Your task to perform on an android device: check data usage Image 0: 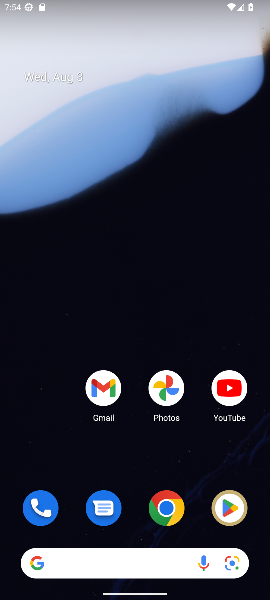
Step 0: drag from (129, 529) to (106, 107)
Your task to perform on an android device: check data usage Image 1: 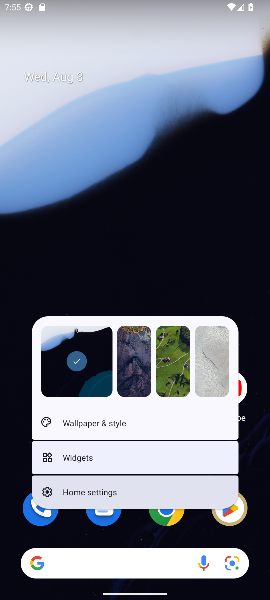
Step 1: click (94, 193)
Your task to perform on an android device: check data usage Image 2: 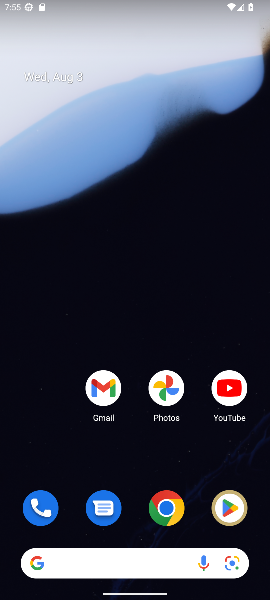
Step 2: drag from (145, 538) to (93, 214)
Your task to perform on an android device: check data usage Image 3: 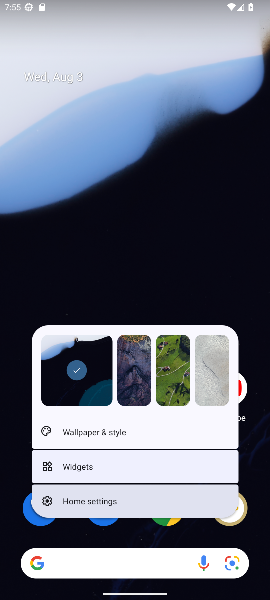
Step 3: click (92, 214)
Your task to perform on an android device: check data usage Image 4: 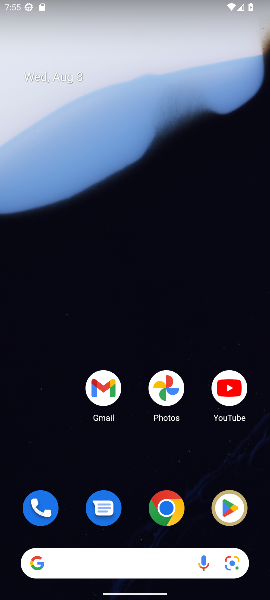
Step 4: drag from (146, 552) to (137, 3)
Your task to perform on an android device: check data usage Image 5: 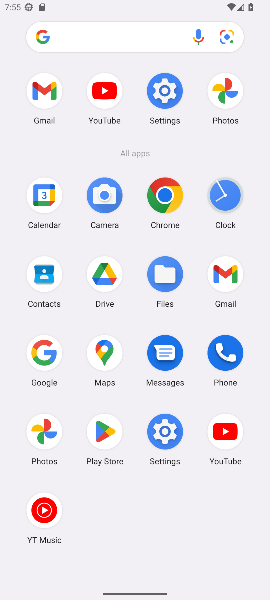
Step 5: click (163, 435)
Your task to perform on an android device: check data usage Image 6: 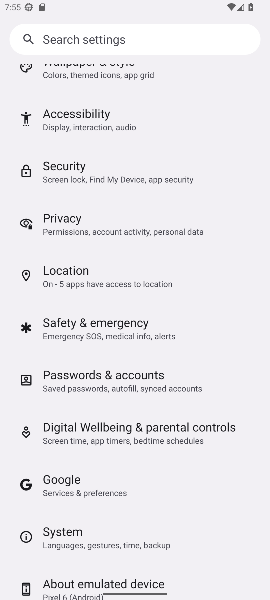
Step 6: drag from (117, 145) to (65, 497)
Your task to perform on an android device: check data usage Image 7: 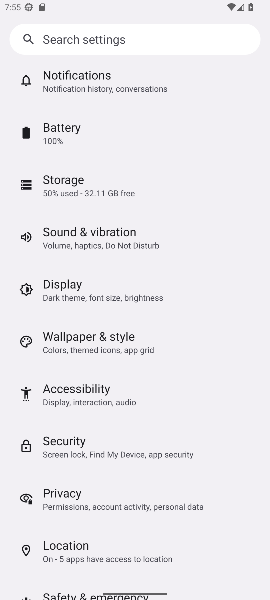
Step 7: drag from (90, 109) to (74, 452)
Your task to perform on an android device: check data usage Image 8: 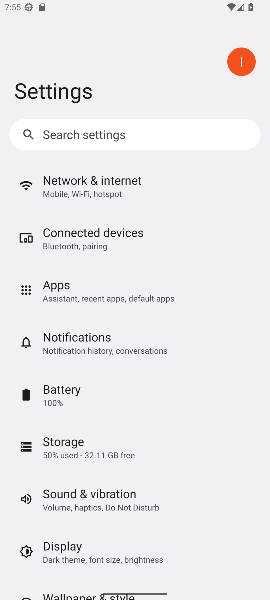
Step 8: click (64, 175)
Your task to perform on an android device: check data usage Image 9: 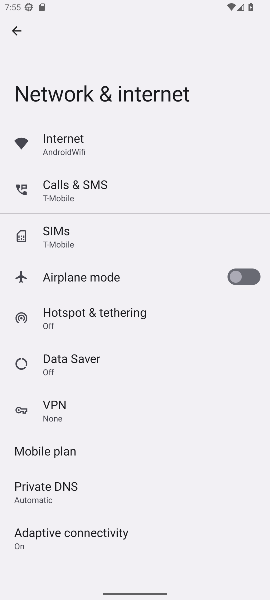
Step 9: task complete